Your task to perform on an android device: Open settings on Google Maps Image 0: 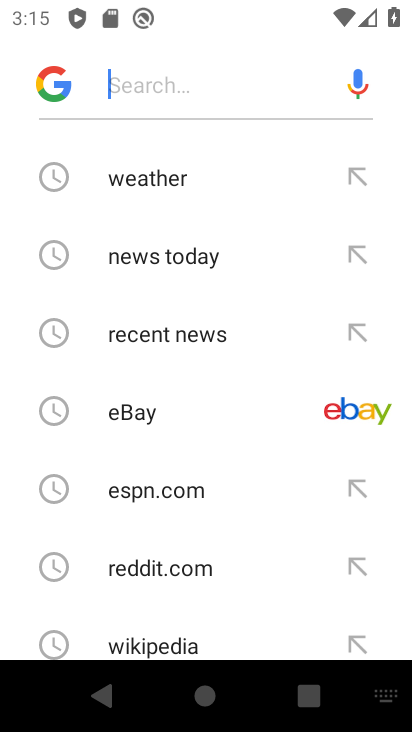
Step 0: press home button
Your task to perform on an android device: Open settings on Google Maps Image 1: 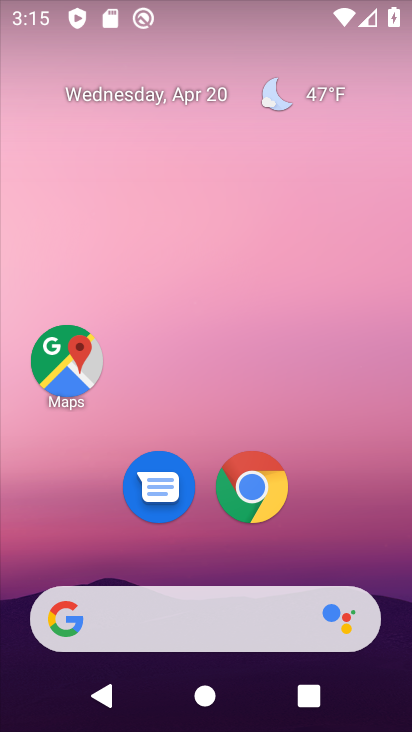
Step 1: click (82, 376)
Your task to perform on an android device: Open settings on Google Maps Image 2: 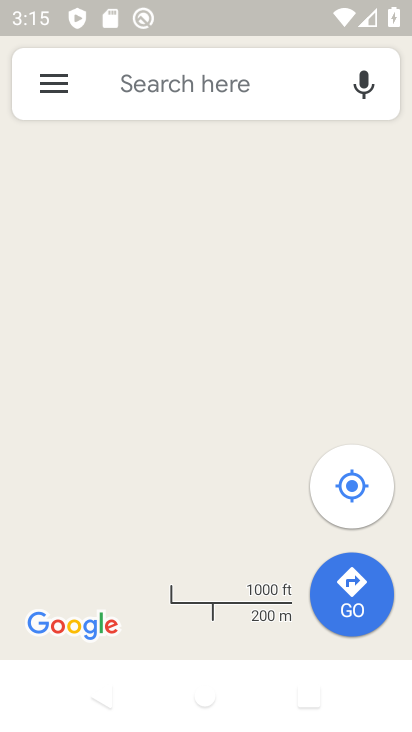
Step 2: click (52, 96)
Your task to perform on an android device: Open settings on Google Maps Image 3: 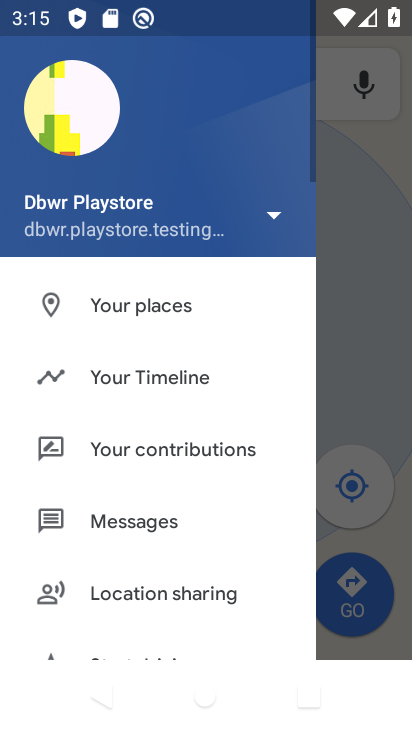
Step 3: click (94, 380)
Your task to perform on an android device: Open settings on Google Maps Image 4: 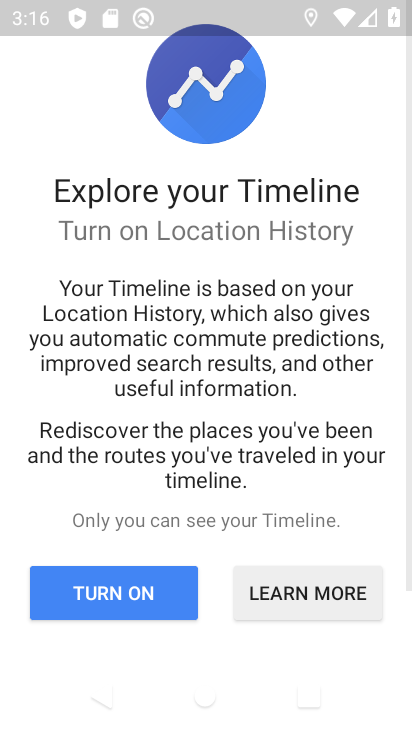
Step 4: click (148, 594)
Your task to perform on an android device: Open settings on Google Maps Image 5: 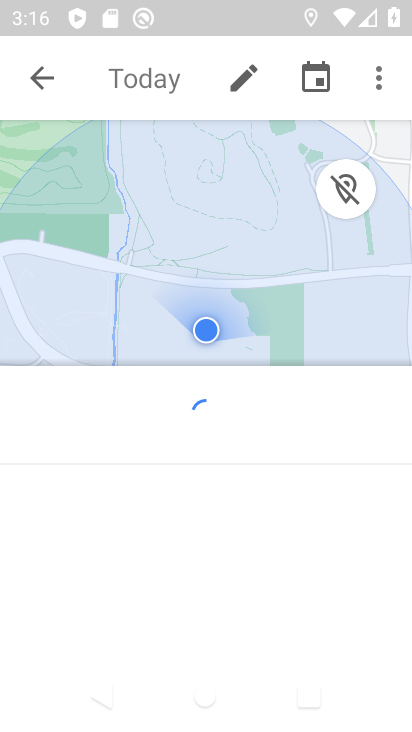
Step 5: click (377, 89)
Your task to perform on an android device: Open settings on Google Maps Image 6: 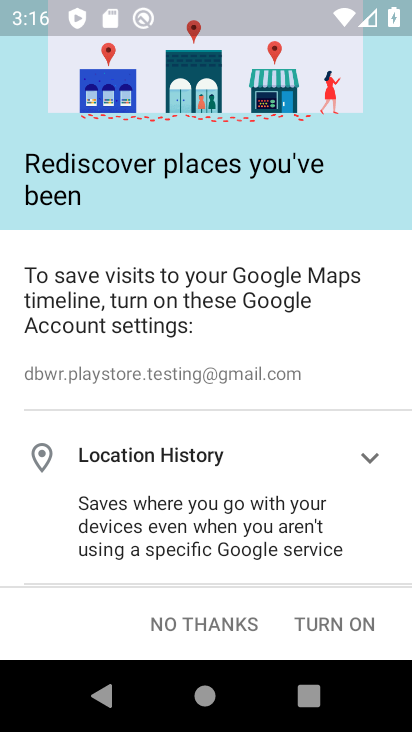
Step 6: click (201, 623)
Your task to perform on an android device: Open settings on Google Maps Image 7: 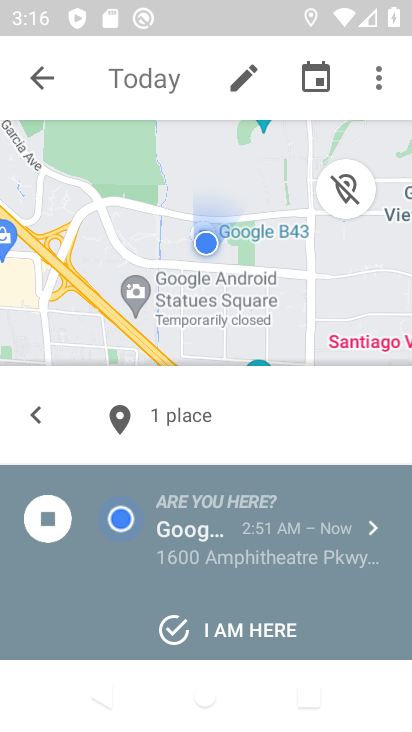
Step 7: click (379, 95)
Your task to perform on an android device: Open settings on Google Maps Image 8: 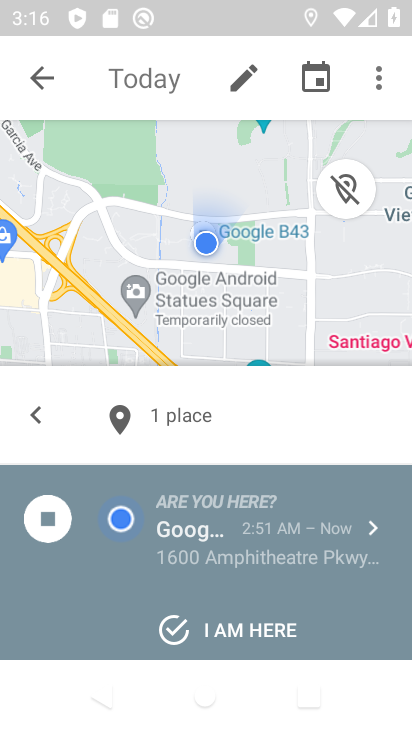
Step 8: click (380, 85)
Your task to perform on an android device: Open settings on Google Maps Image 9: 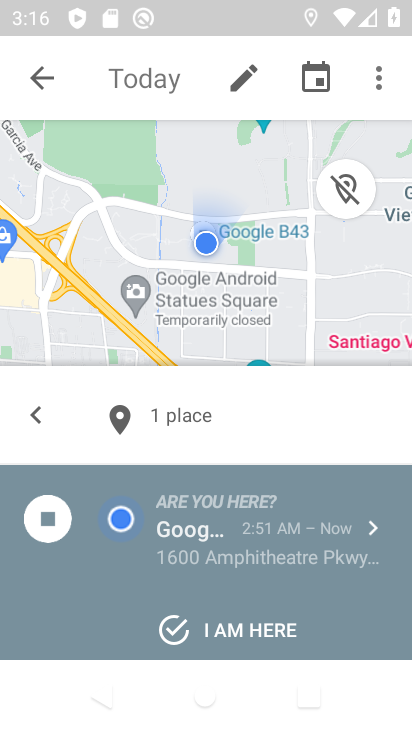
Step 9: click (380, 95)
Your task to perform on an android device: Open settings on Google Maps Image 10: 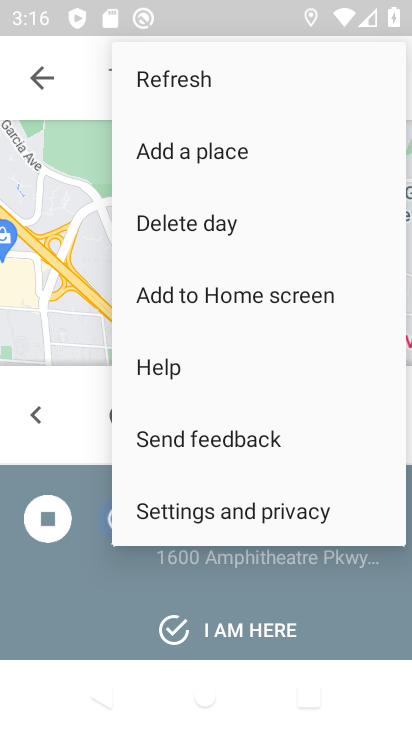
Step 10: click (231, 512)
Your task to perform on an android device: Open settings on Google Maps Image 11: 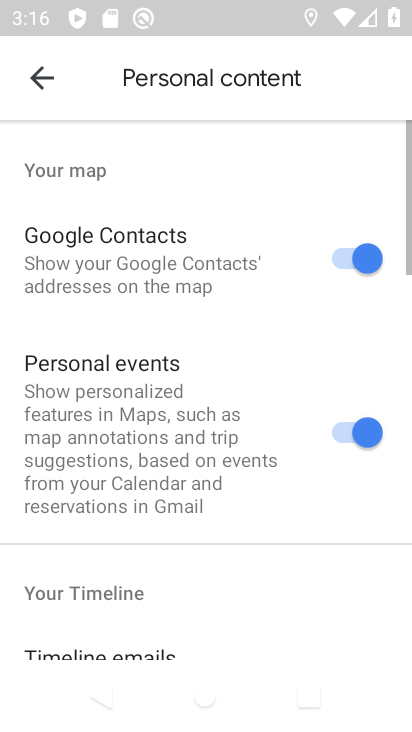
Step 11: task complete